Your task to perform on an android device: turn on airplane mode Image 0: 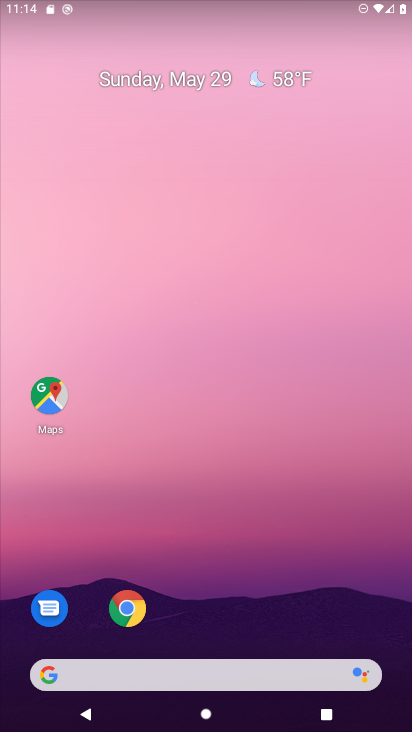
Step 0: drag from (205, 608) to (220, 274)
Your task to perform on an android device: turn on airplane mode Image 1: 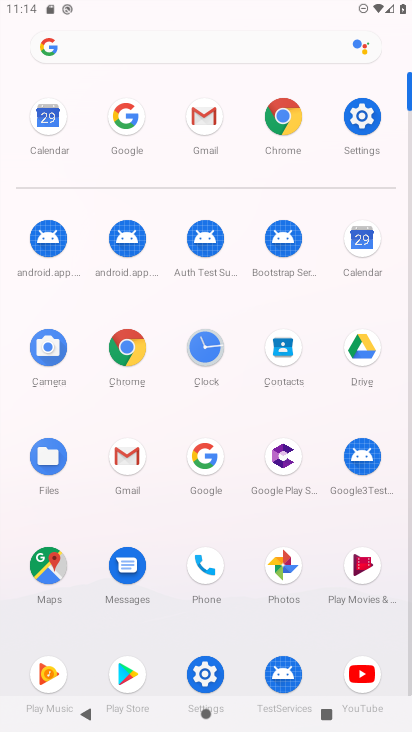
Step 1: click (368, 117)
Your task to perform on an android device: turn on airplane mode Image 2: 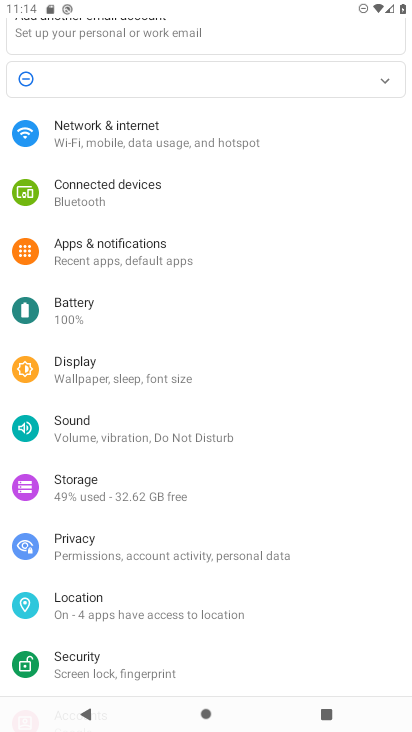
Step 2: click (172, 141)
Your task to perform on an android device: turn on airplane mode Image 3: 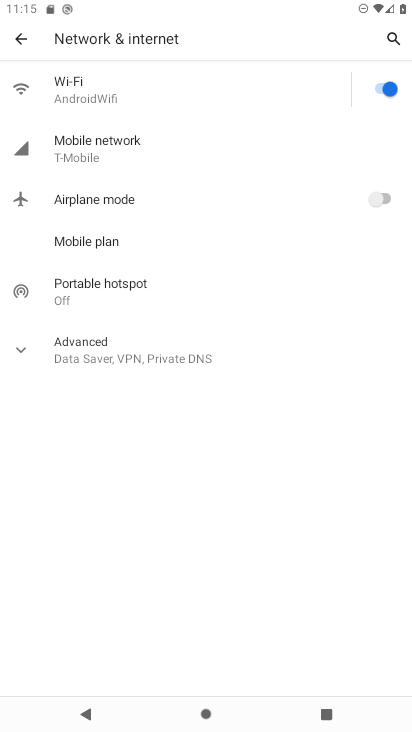
Step 3: click (382, 200)
Your task to perform on an android device: turn on airplane mode Image 4: 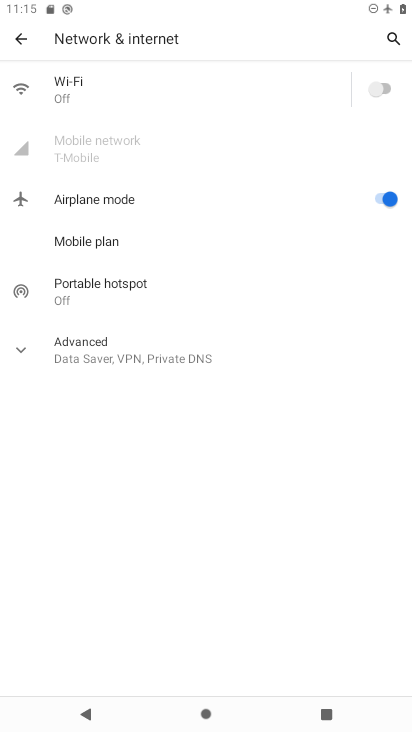
Step 4: task complete